Your task to perform on an android device: change timer sound Image 0: 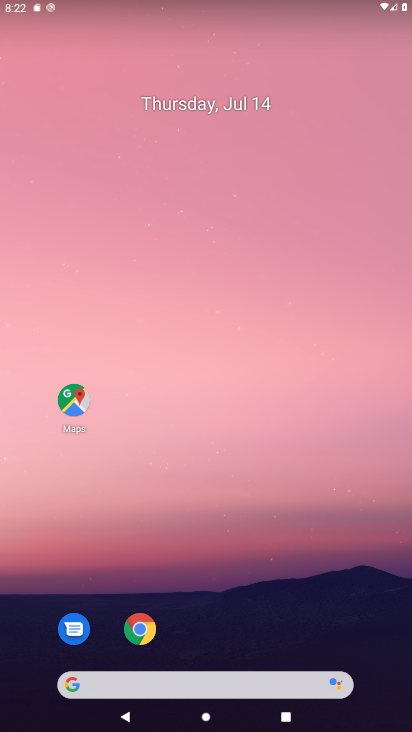
Step 0: drag from (213, 647) to (185, 14)
Your task to perform on an android device: change timer sound Image 1: 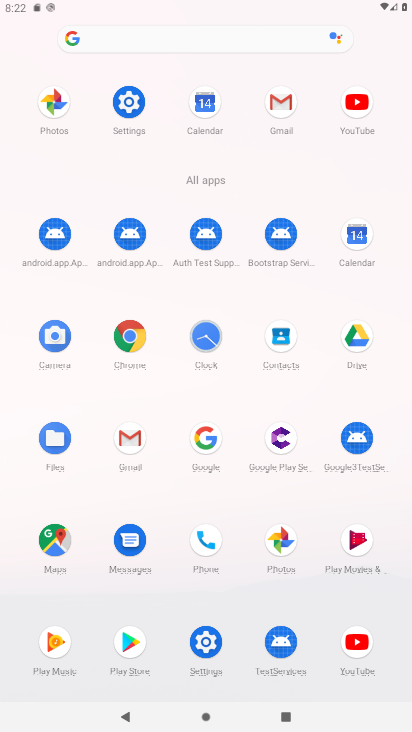
Step 1: click (203, 349)
Your task to perform on an android device: change timer sound Image 2: 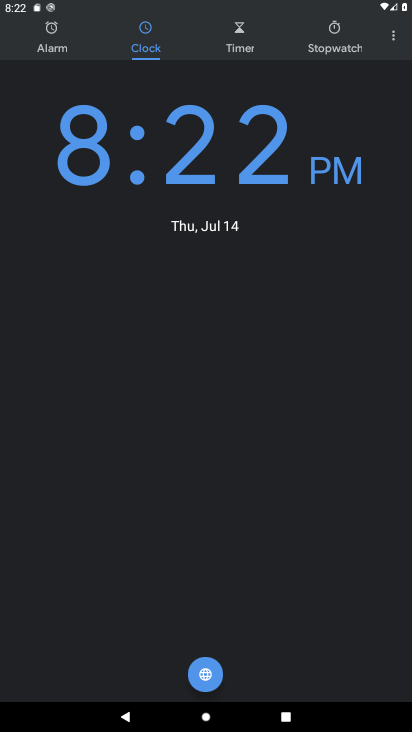
Step 2: click (396, 33)
Your task to perform on an android device: change timer sound Image 3: 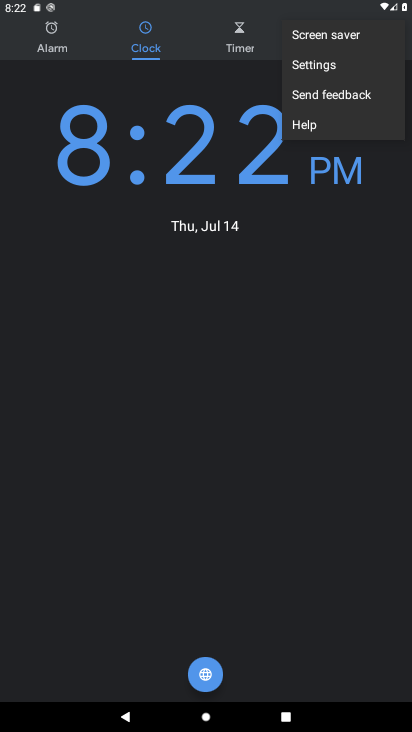
Step 3: click (323, 73)
Your task to perform on an android device: change timer sound Image 4: 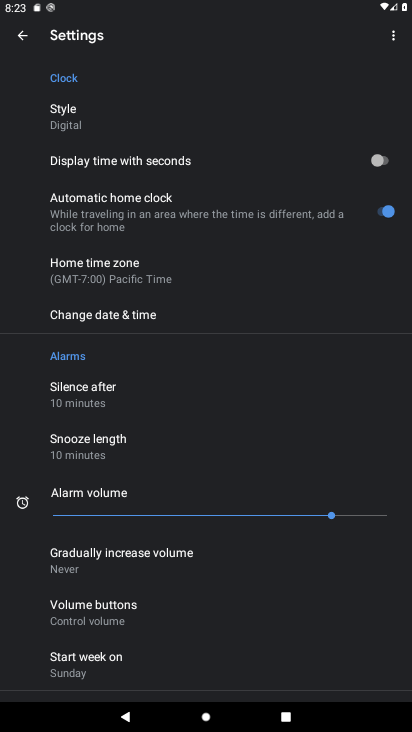
Step 4: drag from (132, 568) to (150, 328)
Your task to perform on an android device: change timer sound Image 5: 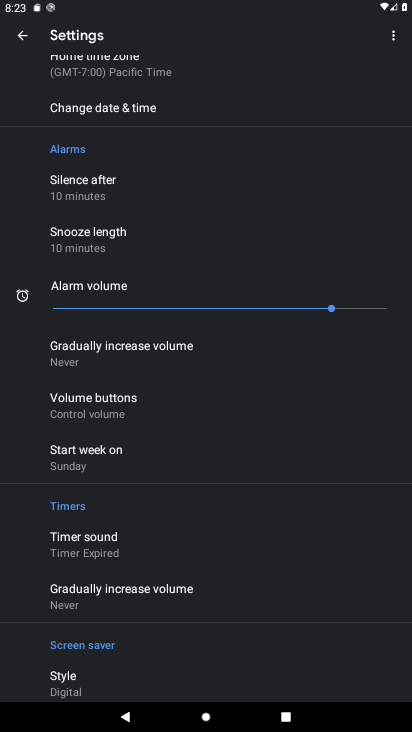
Step 5: click (99, 547)
Your task to perform on an android device: change timer sound Image 6: 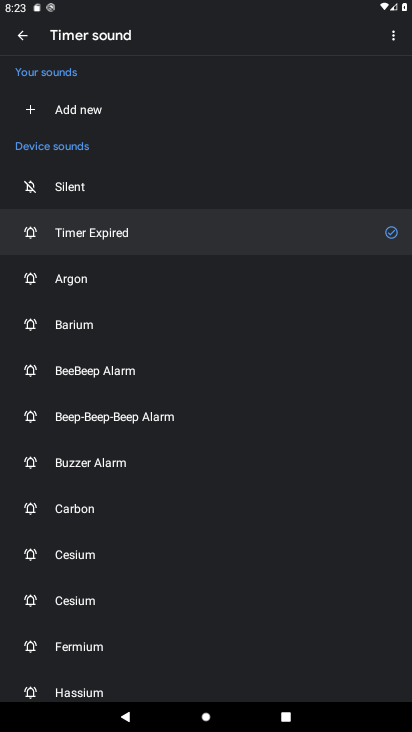
Step 6: click (70, 334)
Your task to perform on an android device: change timer sound Image 7: 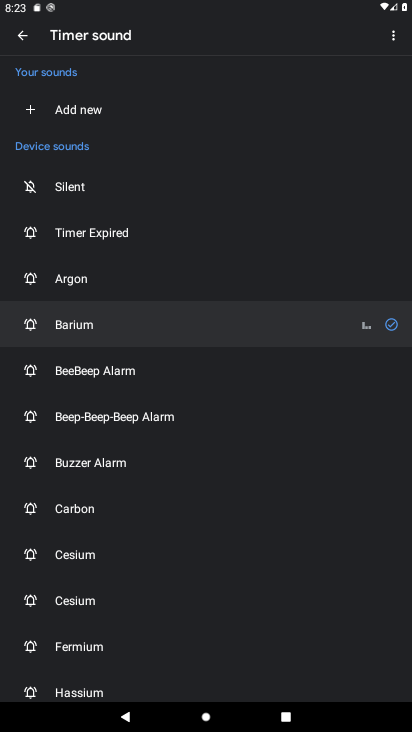
Step 7: task complete